Your task to perform on an android device: Go to accessibility settings Image 0: 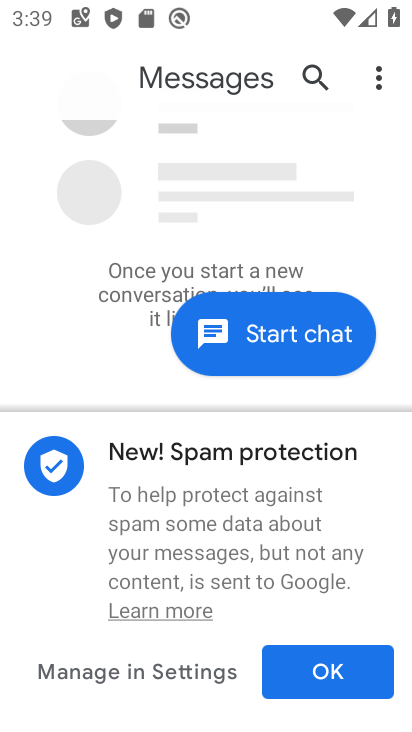
Step 0: press home button
Your task to perform on an android device: Go to accessibility settings Image 1: 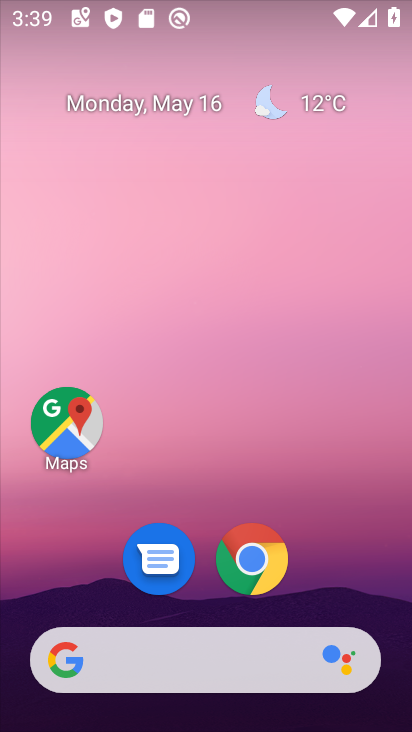
Step 1: drag from (376, 502) to (312, 67)
Your task to perform on an android device: Go to accessibility settings Image 2: 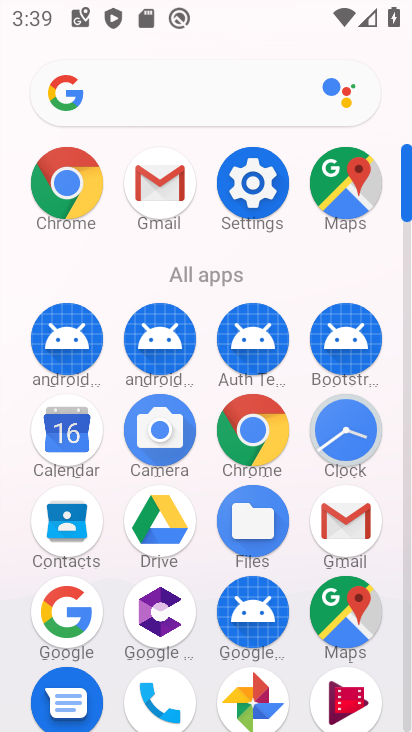
Step 2: click (259, 206)
Your task to perform on an android device: Go to accessibility settings Image 3: 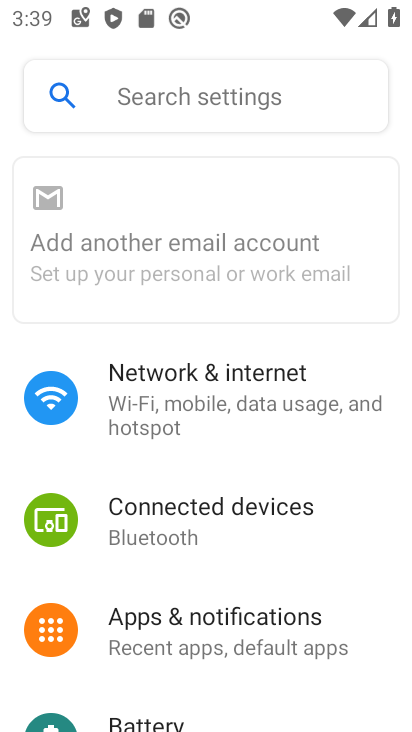
Step 3: drag from (261, 596) to (240, 198)
Your task to perform on an android device: Go to accessibility settings Image 4: 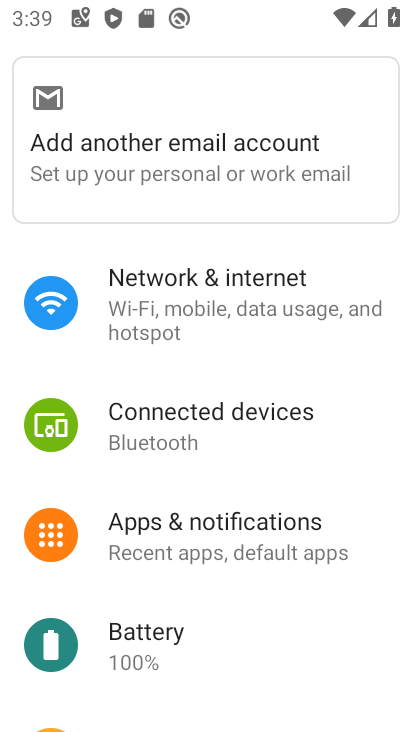
Step 4: drag from (308, 673) to (246, 226)
Your task to perform on an android device: Go to accessibility settings Image 5: 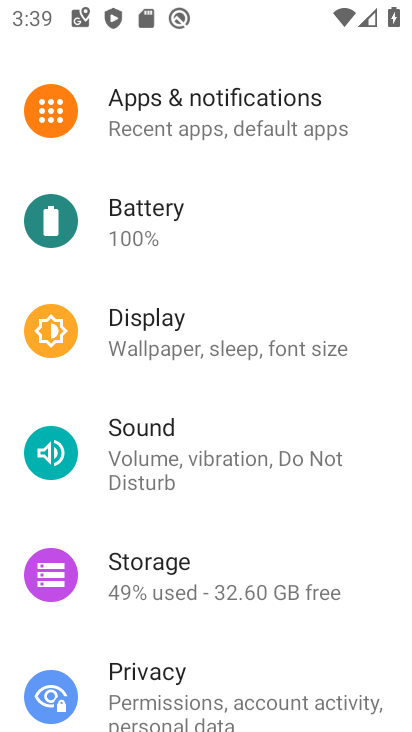
Step 5: drag from (237, 599) to (203, 374)
Your task to perform on an android device: Go to accessibility settings Image 6: 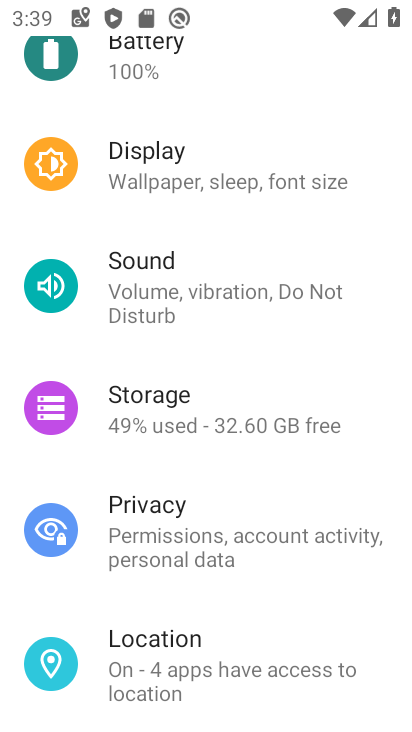
Step 6: drag from (189, 531) to (168, 353)
Your task to perform on an android device: Go to accessibility settings Image 7: 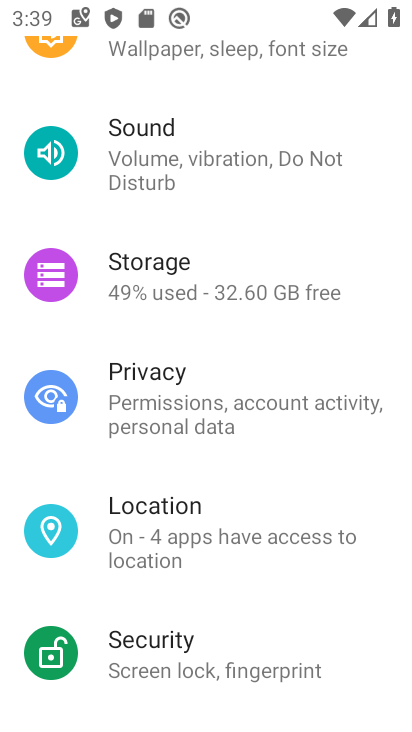
Step 7: drag from (190, 534) to (147, 328)
Your task to perform on an android device: Go to accessibility settings Image 8: 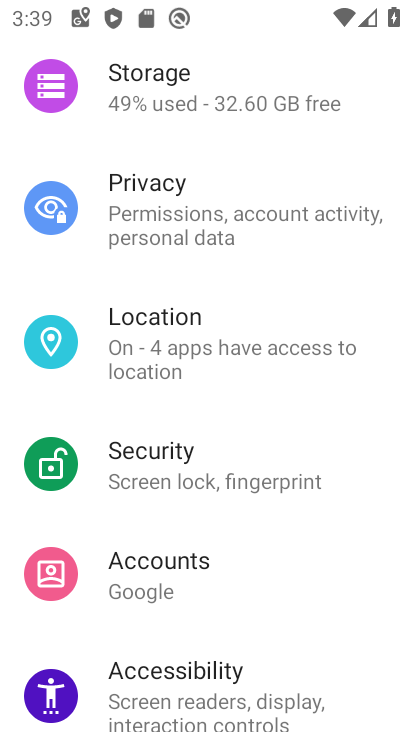
Step 8: click (181, 671)
Your task to perform on an android device: Go to accessibility settings Image 9: 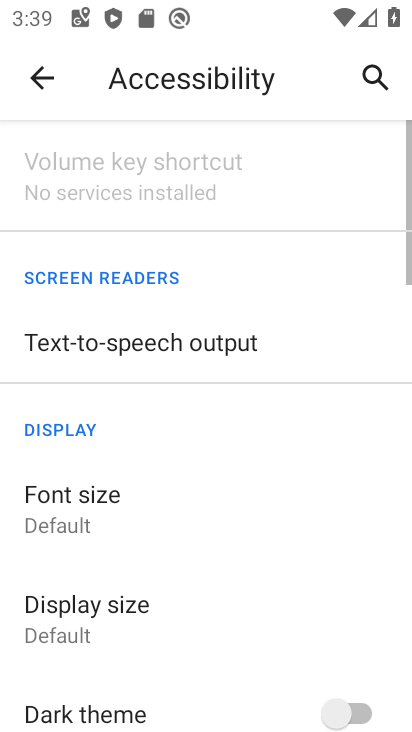
Step 9: task complete